Your task to perform on an android device: stop showing notifications on the lock screen Image 0: 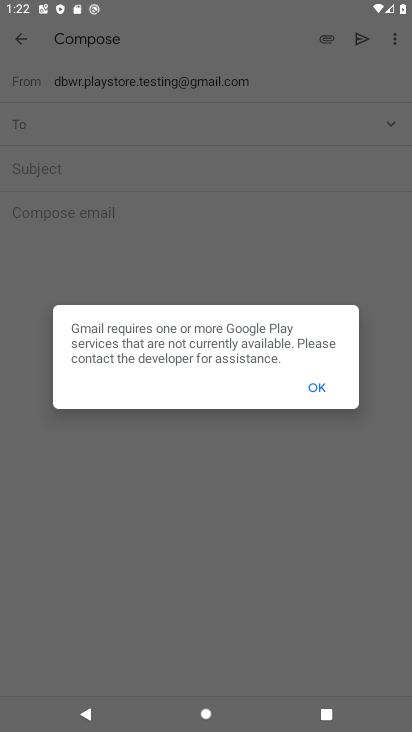
Step 0: press back button
Your task to perform on an android device: stop showing notifications on the lock screen Image 1: 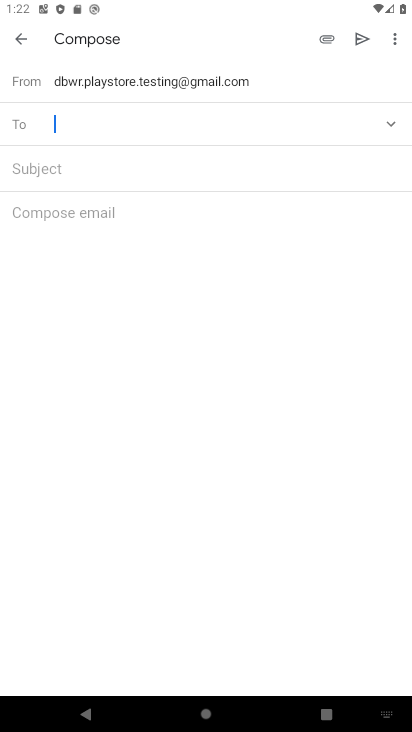
Step 1: press home button
Your task to perform on an android device: stop showing notifications on the lock screen Image 2: 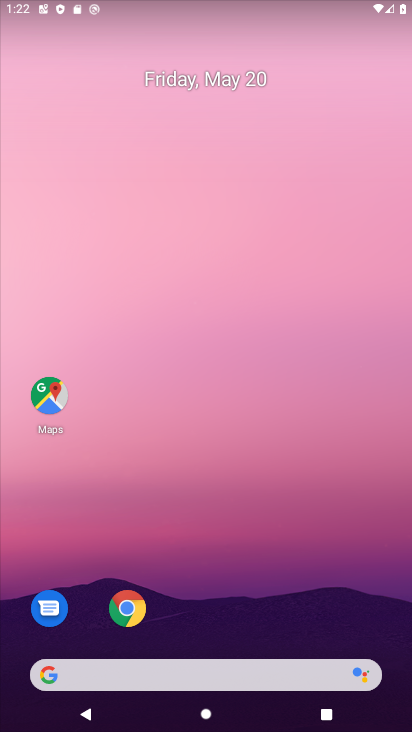
Step 2: drag from (229, 578) to (257, 68)
Your task to perform on an android device: stop showing notifications on the lock screen Image 3: 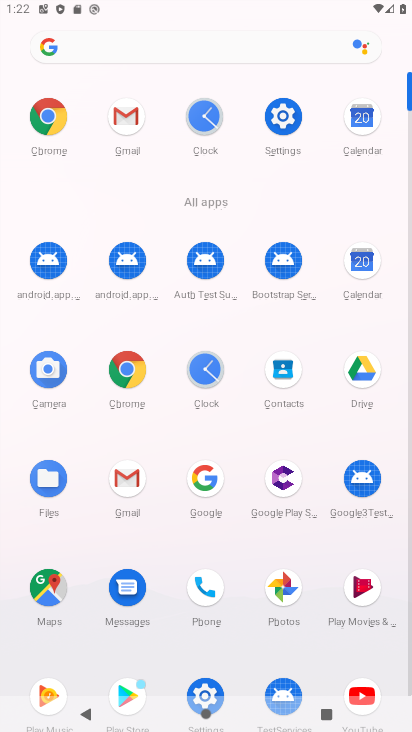
Step 3: click (282, 112)
Your task to perform on an android device: stop showing notifications on the lock screen Image 4: 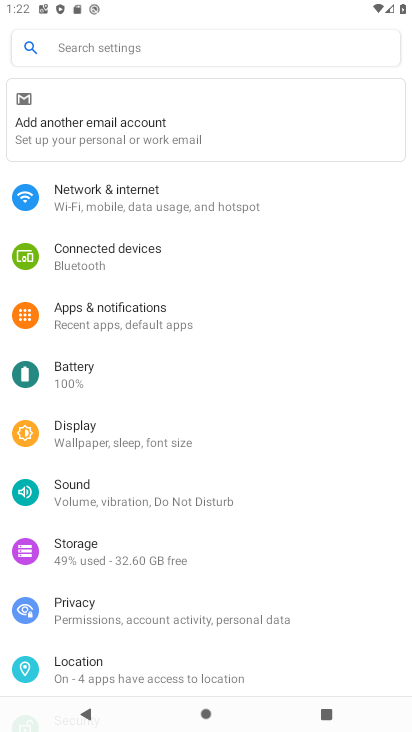
Step 4: click (126, 319)
Your task to perform on an android device: stop showing notifications on the lock screen Image 5: 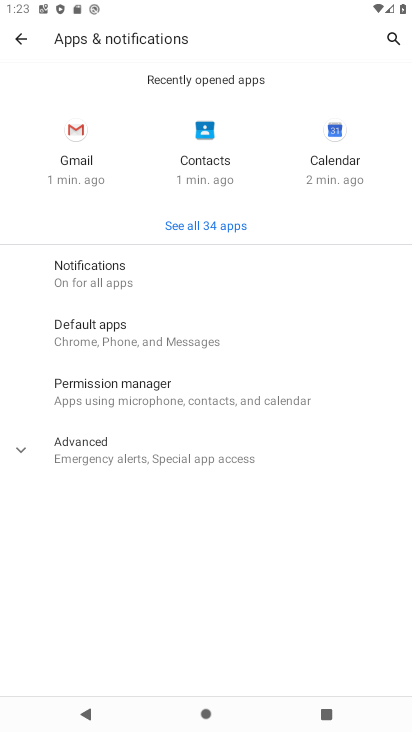
Step 5: click (81, 276)
Your task to perform on an android device: stop showing notifications on the lock screen Image 6: 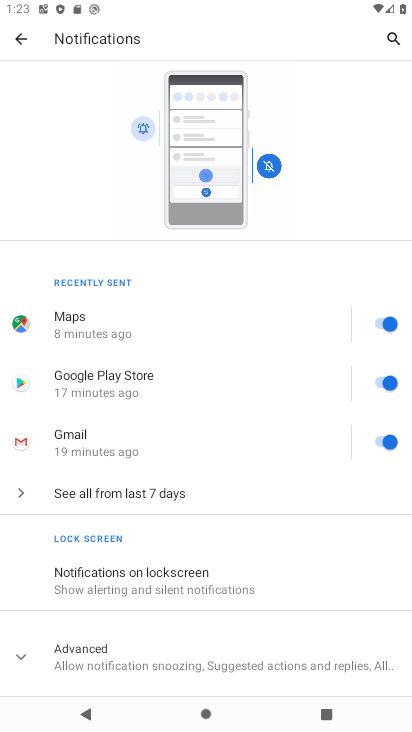
Step 6: click (152, 576)
Your task to perform on an android device: stop showing notifications on the lock screen Image 7: 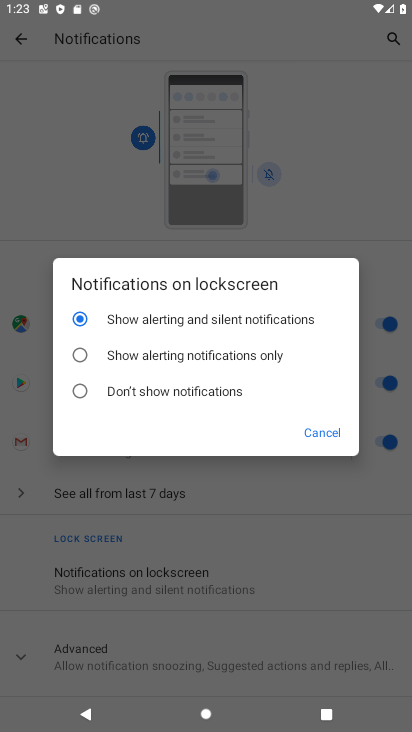
Step 7: click (78, 389)
Your task to perform on an android device: stop showing notifications on the lock screen Image 8: 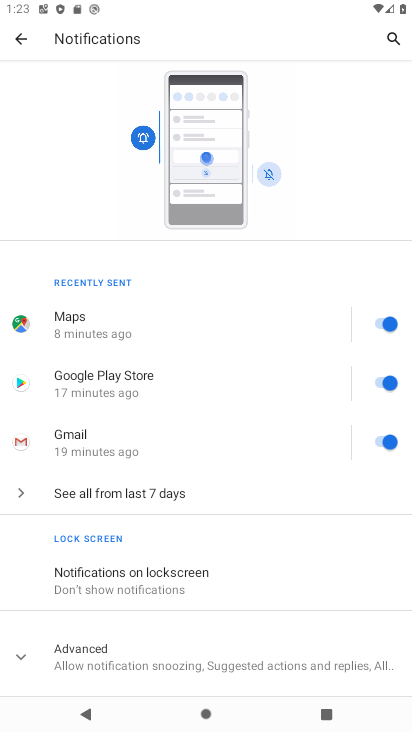
Step 8: task complete